Your task to perform on an android device: turn off translation in the chrome app Image 0: 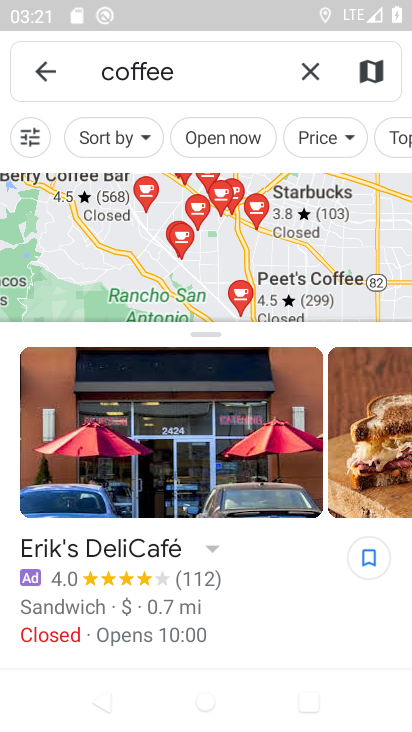
Step 0: press home button
Your task to perform on an android device: turn off translation in the chrome app Image 1: 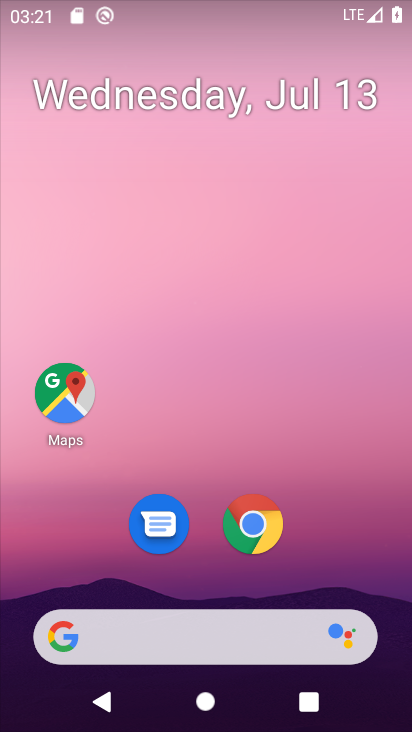
Step 1: click (258, 533)
Your task to perform on an android device: turn off translation in the chrome app Image 2: 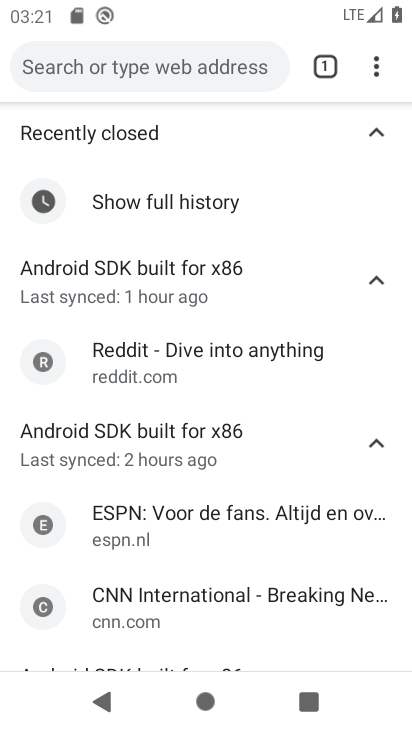
Step 2: click (374, 68)
Your task to perform on an android device: turn off translation in the chrome app Image 3: 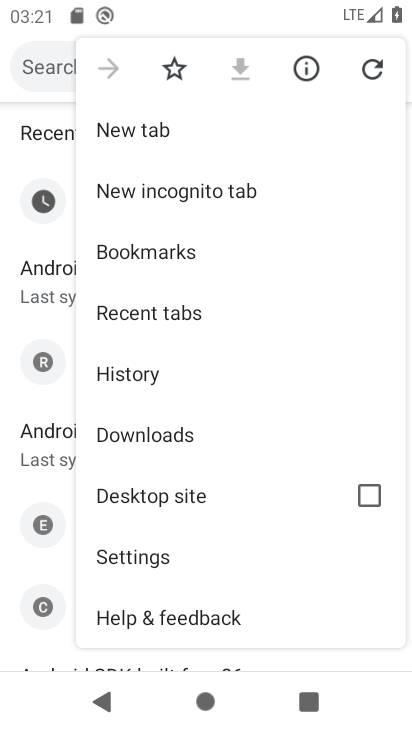
Step 3: click (153, 553)
Your task to perform on an android device: turn off translation in the chrome app Image 4: 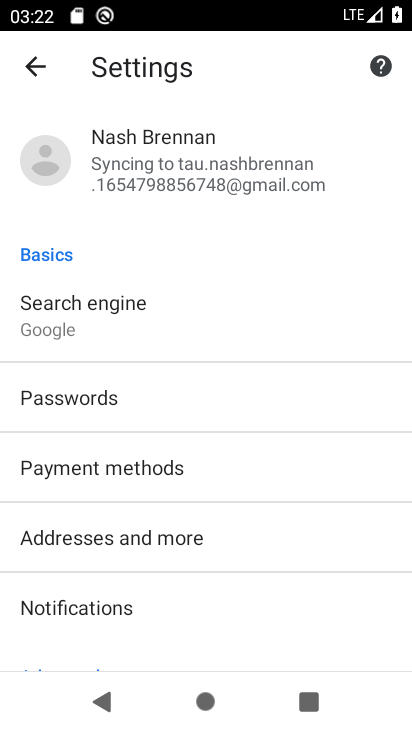
Step 4: drag from (213, 606) to (234, 136)
Your task to perform on an android device: turn off translation in the chrome app Image 5: 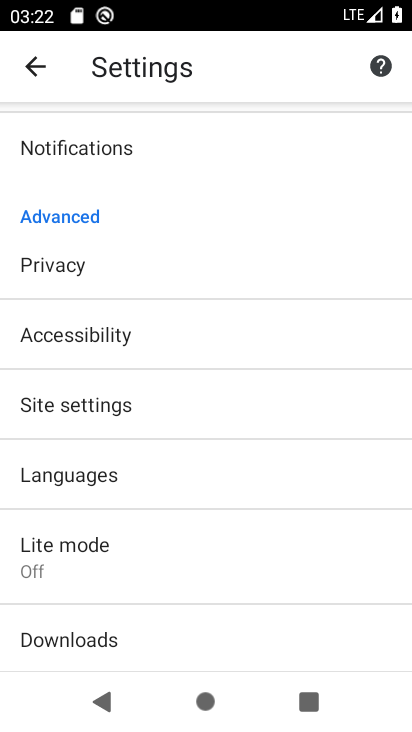
Step 5: click (200, 467)
Your task to perform on an android device: turn off translation in the chrome app Image 6: 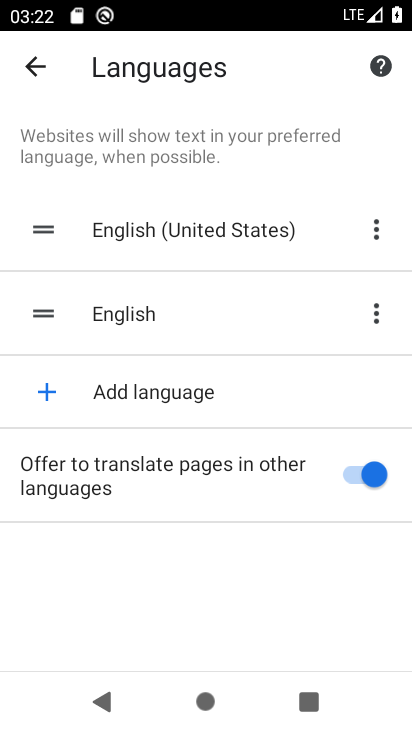
Step 6: click (353, 469)
Your task to perform on an android device: turn off translation in the chrome app Image 7: 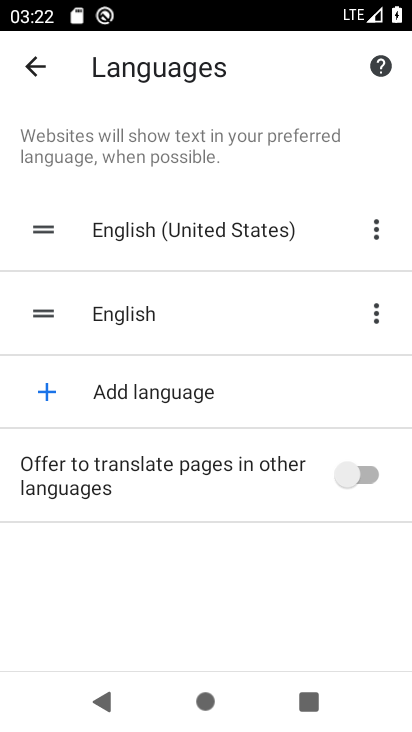
Step 7: task complete